Your task to perform on an android device: Clear the cart on newegg. Search for jbl charge 4 on newegg, select the first entry, and add it to the cart. Image 0: 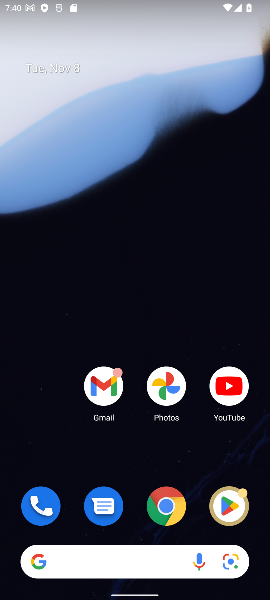
Step 0: drag from (194, 467) to (265, 125)
Your task to perform on an android device: Clear the cart on newegg. Search for jbl charge 4 on newegg, select the first entry, and add it to the cart. Image 1: 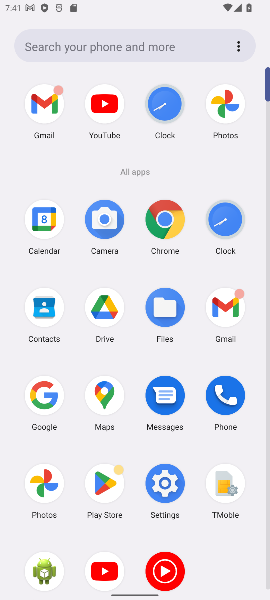
Step 1: click (153, 227)
Your task to perform on an android device: Clear the cart on newegg. Search for jbl charge 4 on newegg, select the first entry, and add it to the cart. Image 2: 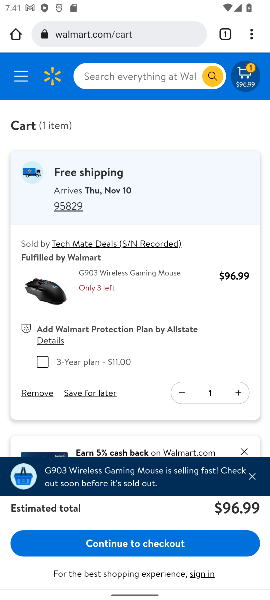
Step 2: click (121, 27)
Your task to perform on an android device: Clear the cart on newegg. Search for jbl charge 4 on newegg, select the first entry, and add it to the cart. Image 3: 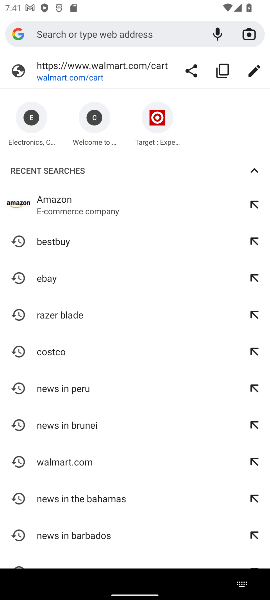
Step 3: type "newegg"
Your task to perform on an android device: Clear the cart on newegg. Search for jbl charge 4 on newegg, select the first entry, and add it to the cart. Image 4: 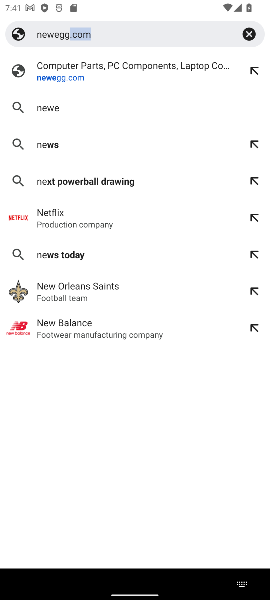
Step 4: press enter
Your task to perform on an android device: Clear the cart on newegg. Search for jbl charge 4 on newegg, select the first entry, and add it to the cart. Image 5: 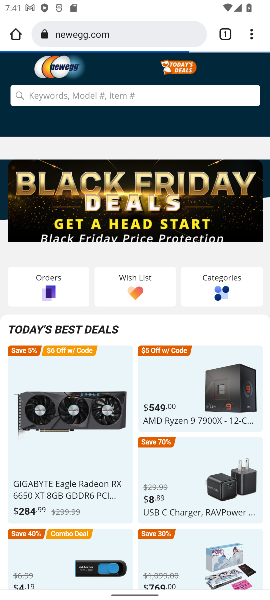
Step 5: click (145, 82)
Your task to perform on an android device: Clear the cart on newegg. Search for jbl charge 4 on newegg, select the first entry, and add it to the cart. Image 6: 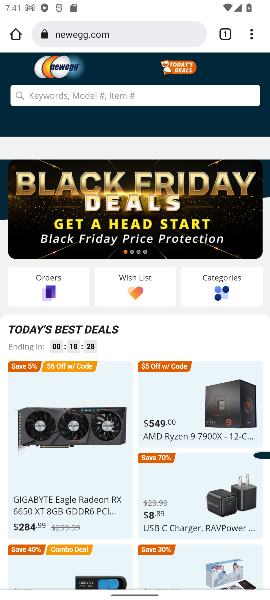
Step 6: click (144, 93)
Your task to perform on an android device: Clear the cart on newegg. Search for jbl charge 4 on newegg, select the first entry, and add it to the cart. Image 7: 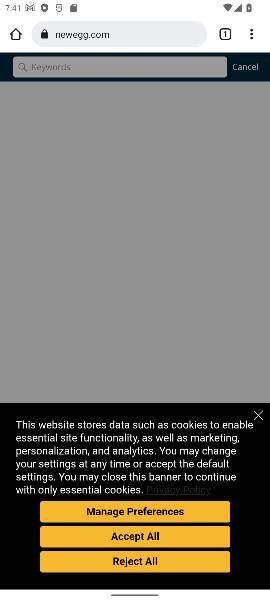
Step 7: click (147, 96)
Your task to perform on an android device: Clear the cart on newegg. Search for jbl charge 4 on newegg, select the first entry, and add it to the cart. Image 8: 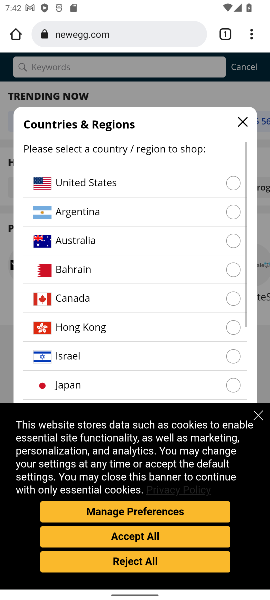
Step 8: click (264, 418)
Your task to perform on an android device: Clear the cart on newegg. Search for jbl charge 4 on newegg, select the first entry, and add it to the cart. Image 9: 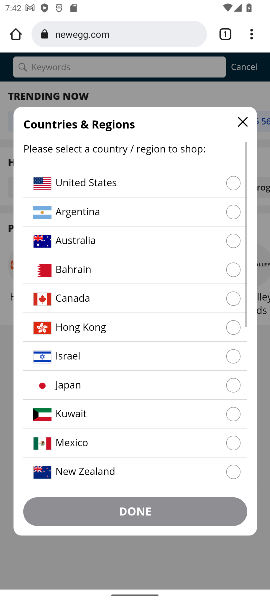
Step 9: click (159, 517)
Your task to perform on an android device: Clear the cart on newegg. Search for jbl charge 4 on newegg, select the first entry, and add it to the cart. Image 10: 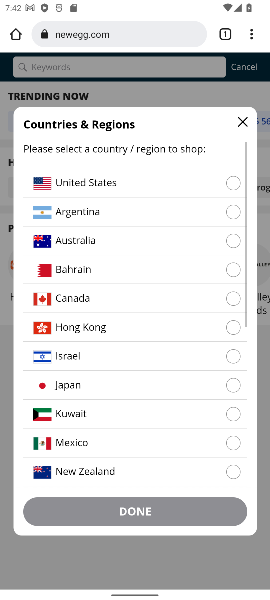
Step 10: click (99, 509)
Your task to perform on an android device: Clear the cart on newegg. Search for jbl charge 4 on newegg, select the first entry, and add it to the cart. Image 11: 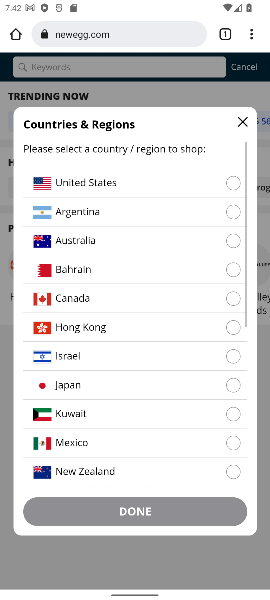
Step 11: click (202, 177)
Your task to perform on an android device: Clear the cart on newegg. Search for jbl charge 4 on newegg, select the first entry, and add it to the cart. Image 12: 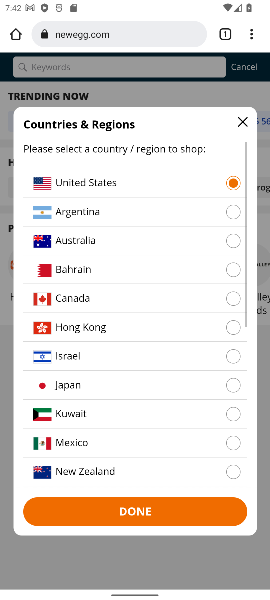
Step 12: click (143, 511)
Your task to perform on an android device: Clear the cart on newegg. Search for jbl charge 4 on newegg, select the first entry, and add it to the cart. Image 13: 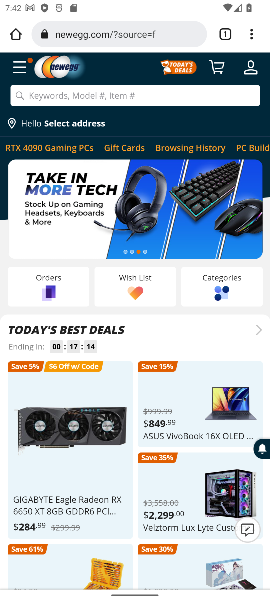
Step 13: click (177, 91)
Your task to perform on an android device: Clear the cart on newegg. Search for jbl charge 4 on newegg, select the first entry, and add it to the cart. Image 14: 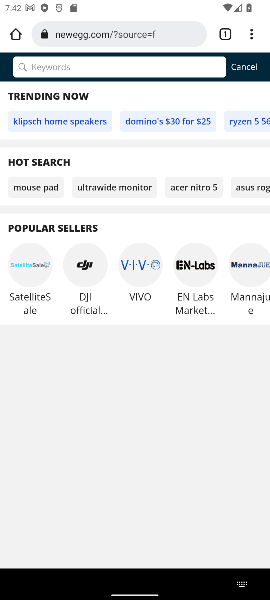
Step 14: type " jbl charge 4 "
Your task to perform on an android device: Clear the cart on newegg. Search for jbl charge 4 on newegg, select the first entry, and add it to the cart. Image 15: 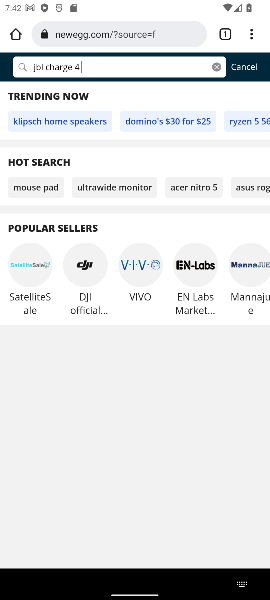
Step 15: press enter
Your task to perform on an android device: Clear the cart on newegg. Search for jbl charge 4 on newegg, select the first entry, and add it to the cart. Image 16: 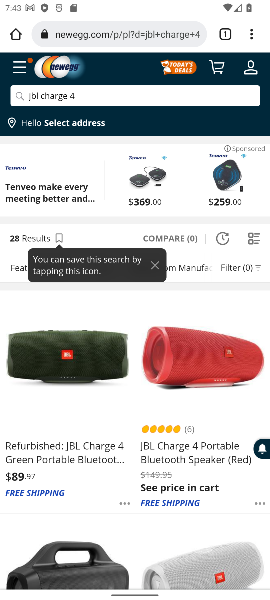
Step 16: click (34, 386)
Your task to perform on an android device: Clear the cart on newegg. Search for jbl charge 4 on newegg, select the first entry, and add it to the cart. Image 17: 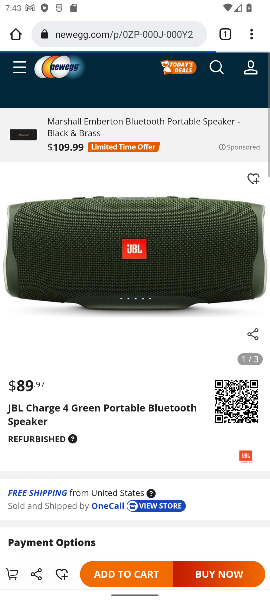
Step 17: click (67, 349)
Your task to perform on an android device: Clear the cart on newegg. Search for jbl charge 4 on newegg, select the first entry, and add it to the cart. Image 18: 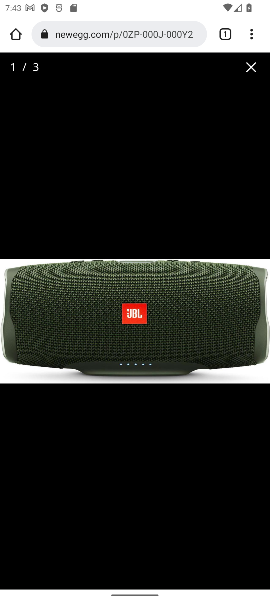
Step 18: click (249, 73)
Your task to perform on an android device: Clear the cart on newegg. Search for jbl charge 4 on newegg, select the first entry, and add it to the cart. Image 19: 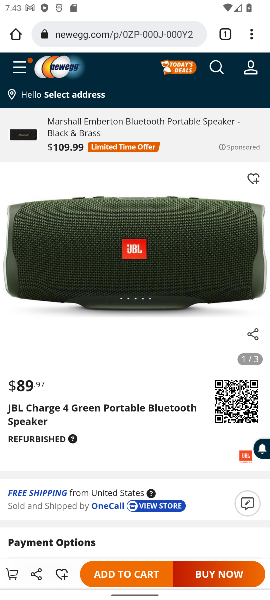
Step 19: click (139, 576)
Your task to perform on an android device: Clear the cart on newegg. Search for jbl charge 4 on newegg, select the first entry, and add it to the cart. Image 20: 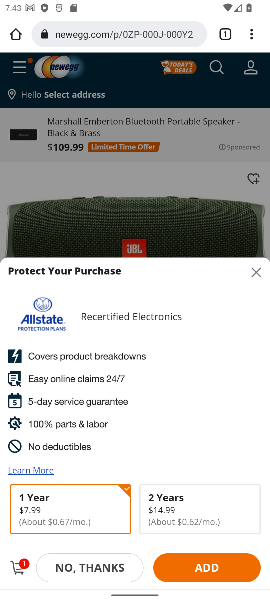
Step 20: task complete